Your task to perform on an android device: Is it going to rain this weekend? Image 0: 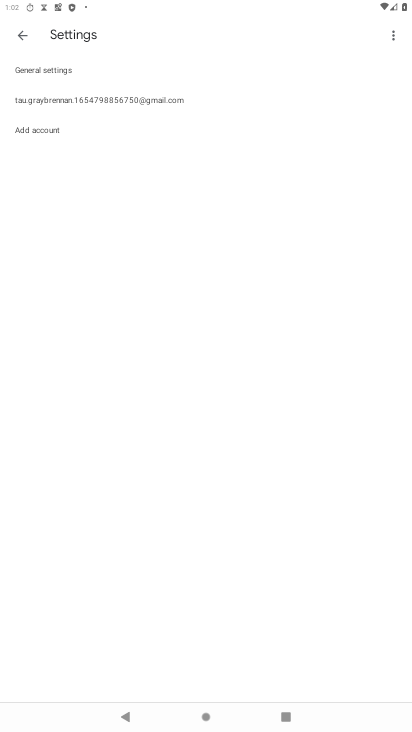
Step 0: press home button
Your task to perform on an android device: Is it going to rain this weekend? Image 1: 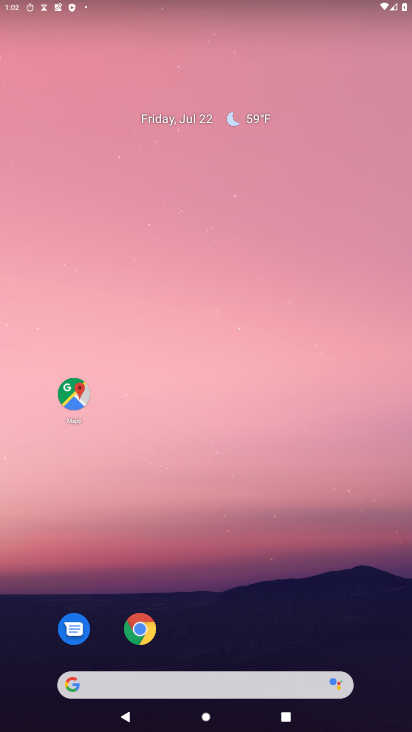
Step 1: drag from (263, 687) to (186, 2)
Your task to perform on an android device: Is it going to rain this weekend? Image 2: 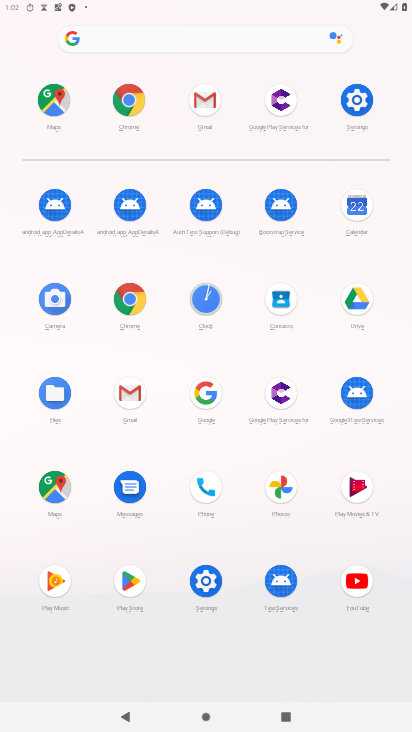
Step 2: click (143, 294)
Your task to perform on an android device: Is it going to rain this weekend? Image 3: 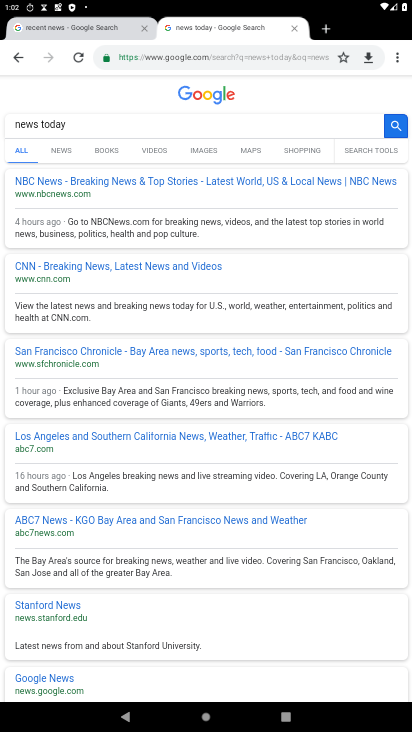
Step 3: click (158, 59)
Your task to perform on an android device: Is it going to rain this weekend? Image 4: 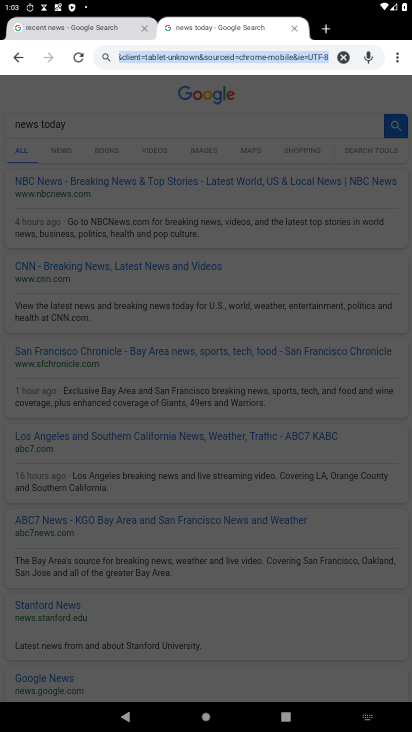
Step 4: type "going to rain this weekend"
Your task to perform on an android device: Is it going to rain this weekend? Image 5: 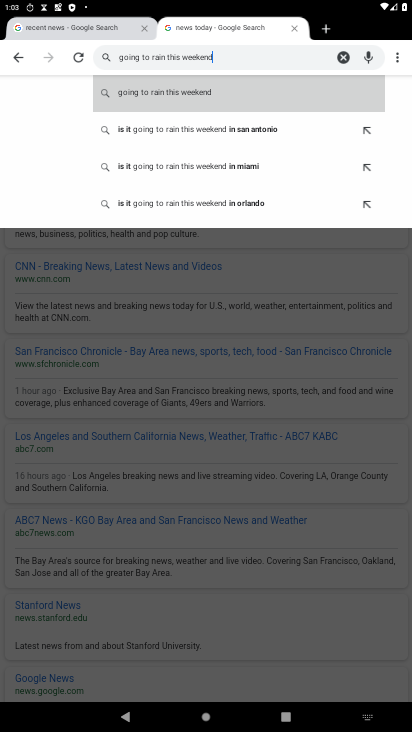
Step 5: click (141, 88)
Your task to perform on an android device: Is it going to rain this weekend? Image 6: 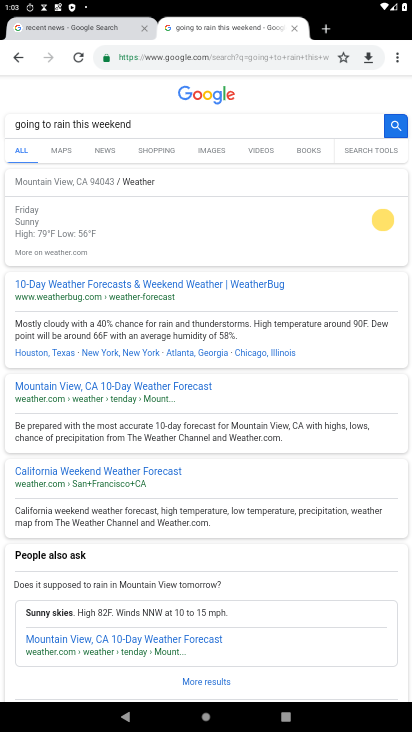
Step 6: task complete